Your task to perform on an android device: What's the news in Taiwan? Image 0: 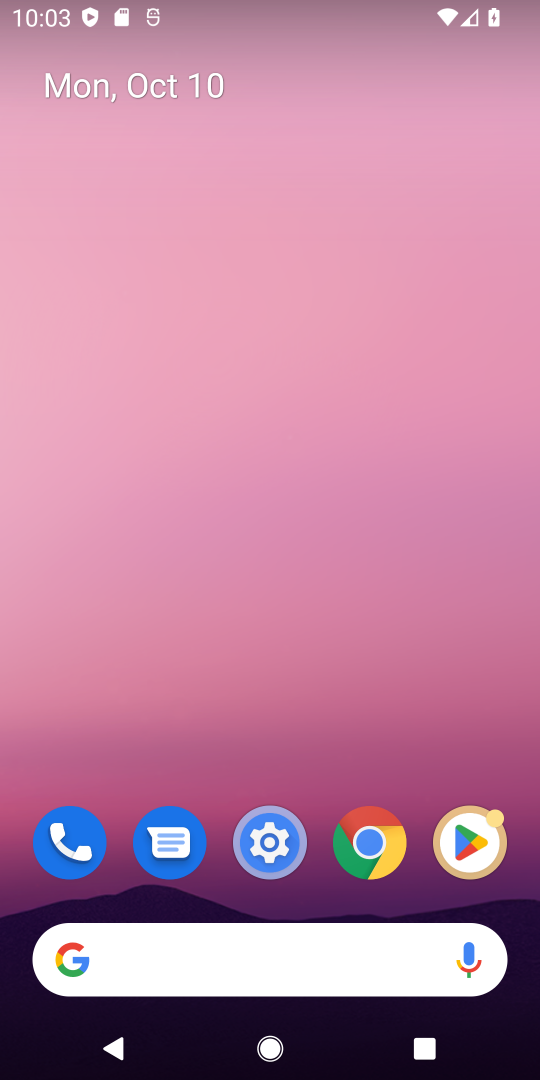
Step 0: click (265, 954)
Your task to perform on an android device: What's the news in Taiwan? Image 1: 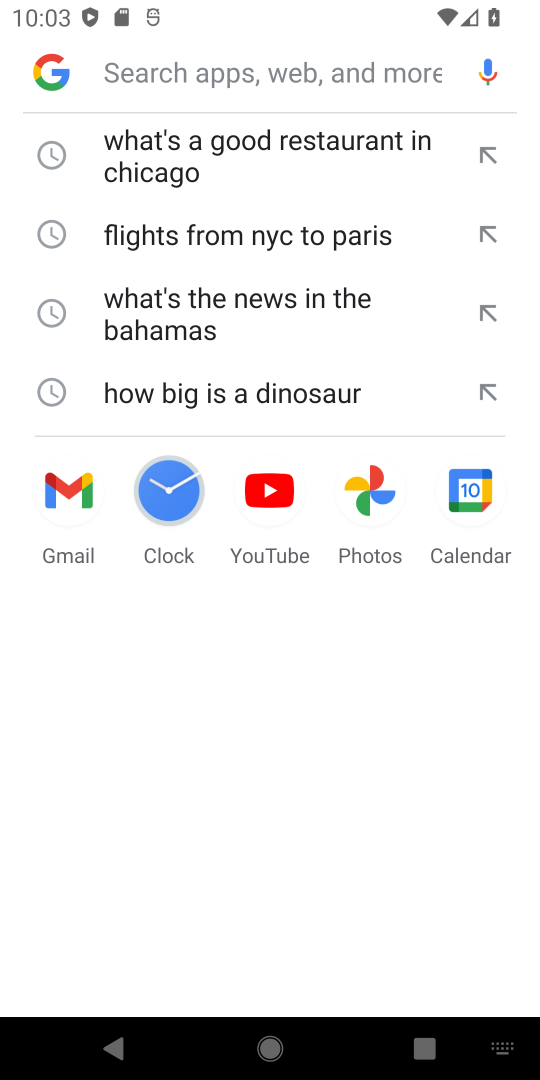
Step 1: type "taiwan"
Your task to perform on an android device: What's the news in Taiwan? Image 2: 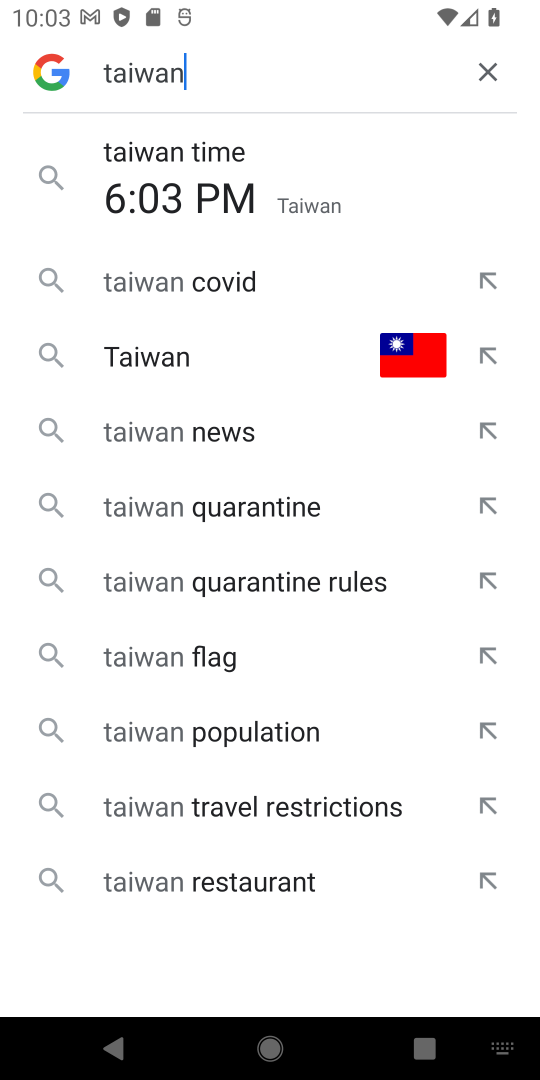
Step 2: click (138, 433)
Your task to perform on an android device: What's the news in Taiwan? Image 3: 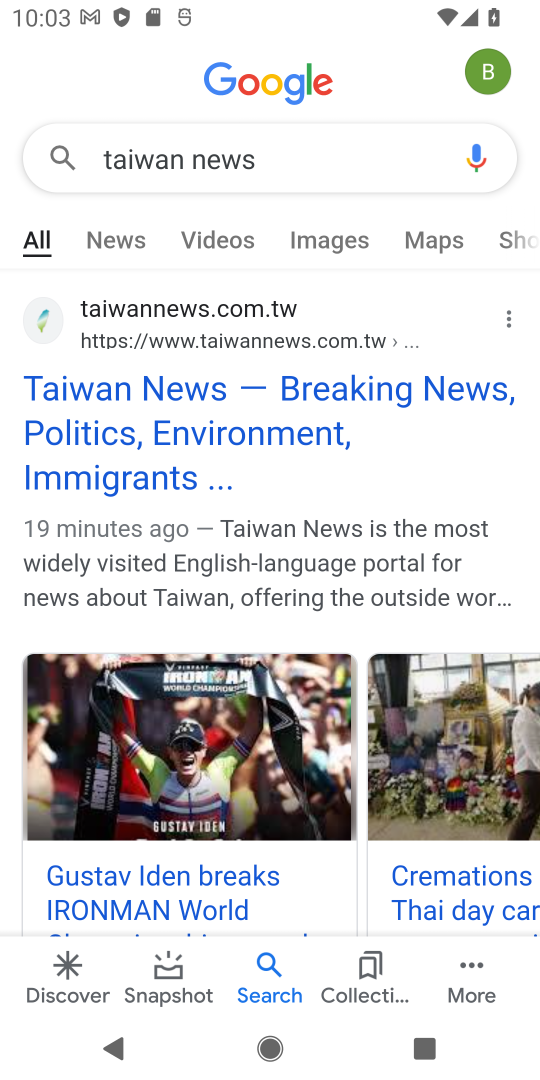
Step 3: click (114, 238)
Your task to perform on an android device: What's the news in Taiwan? Image 4: 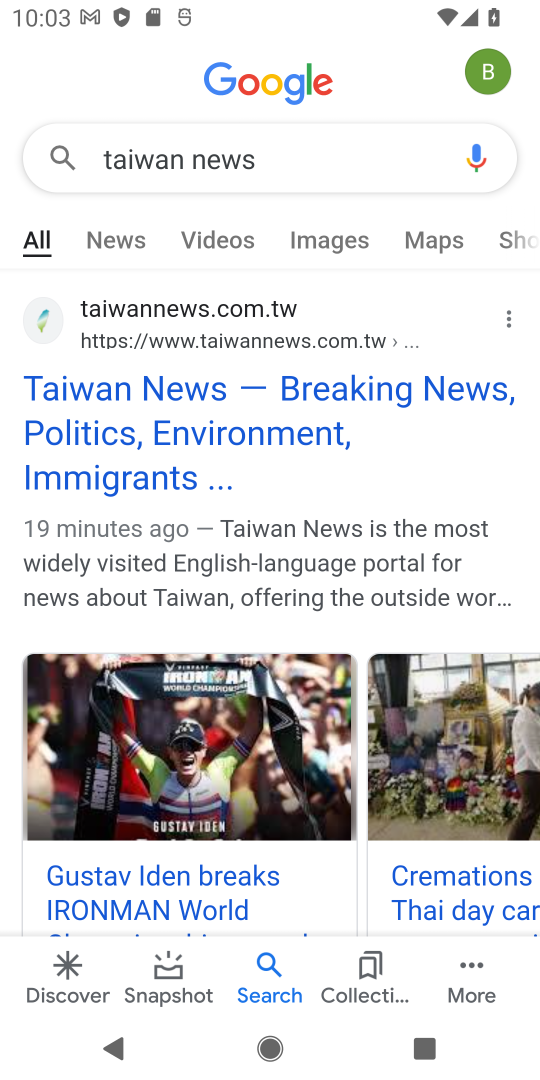
Step 4: click (112, 240)
Your task to perform on an android device: What's the news in Taiwan? Image 5: 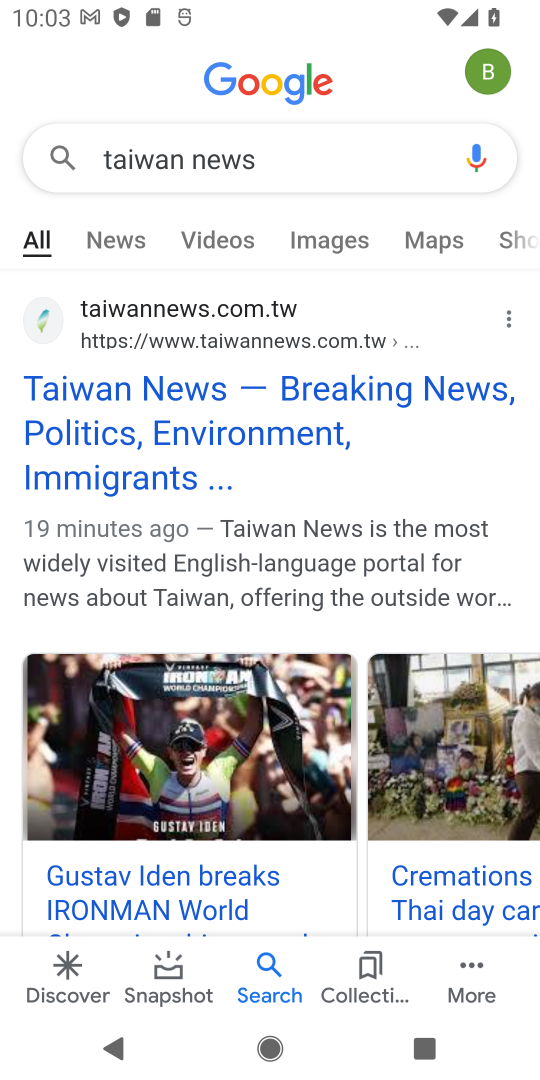
Step 5: click (108, 242)
Your task to perform on an android device: What's the news in Taiwan? Image 6: 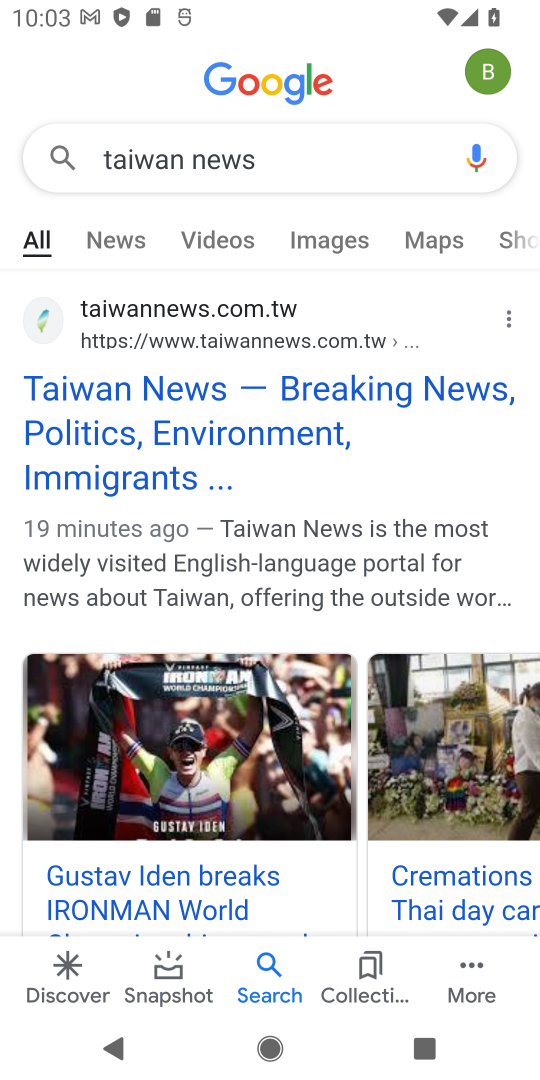
Step 6: click (108, 242)
Your task to perform on an android device: What's the news in Taiwan? Image 7: 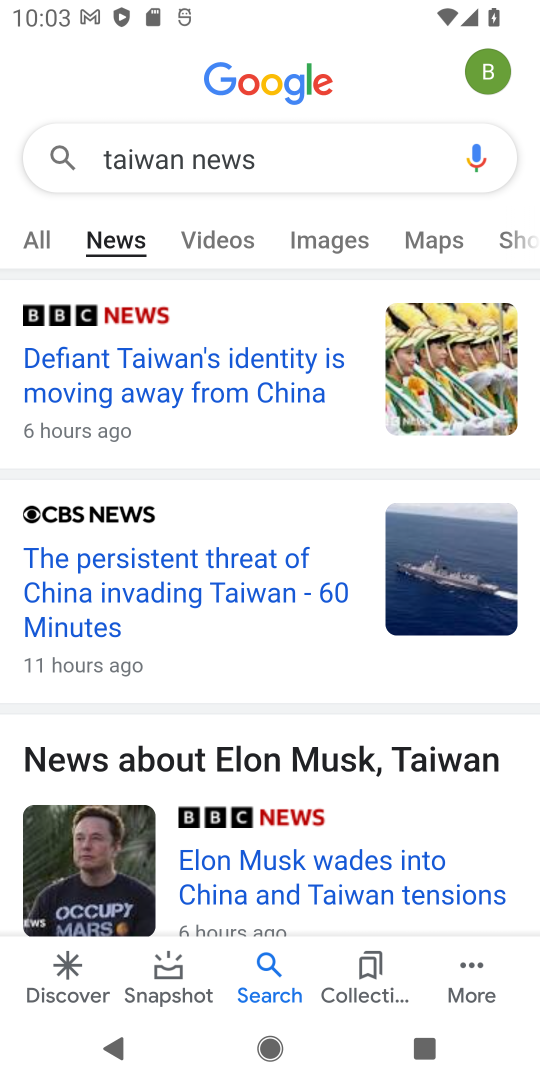
Step 7: click (115, 398)
Your task to perform on an android device: What's the news in Taiwan? Image 8: 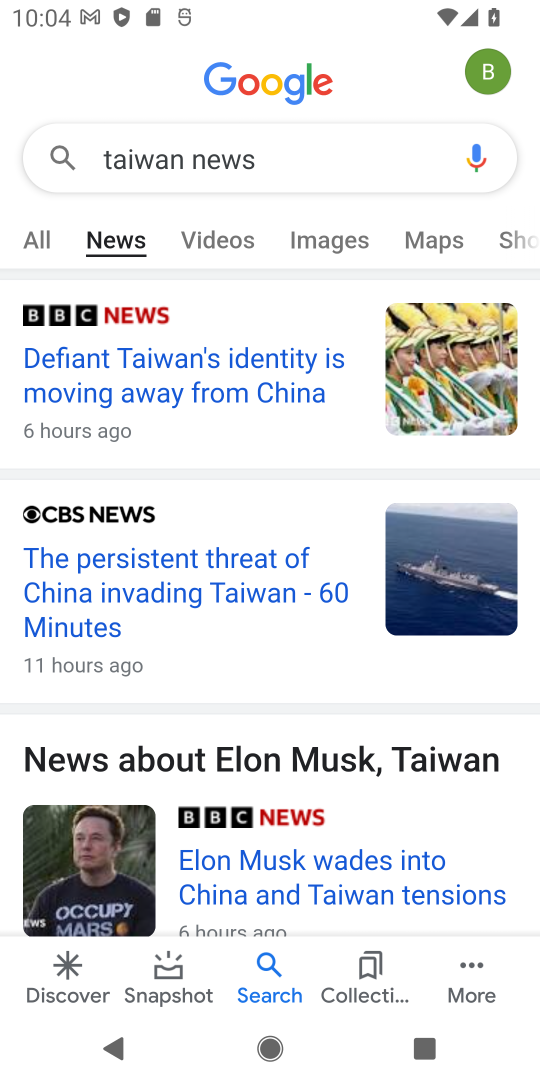
Step 8: click (155, 388)
Your task to perform on an android device: What's the news in Taiwan? Image 9: 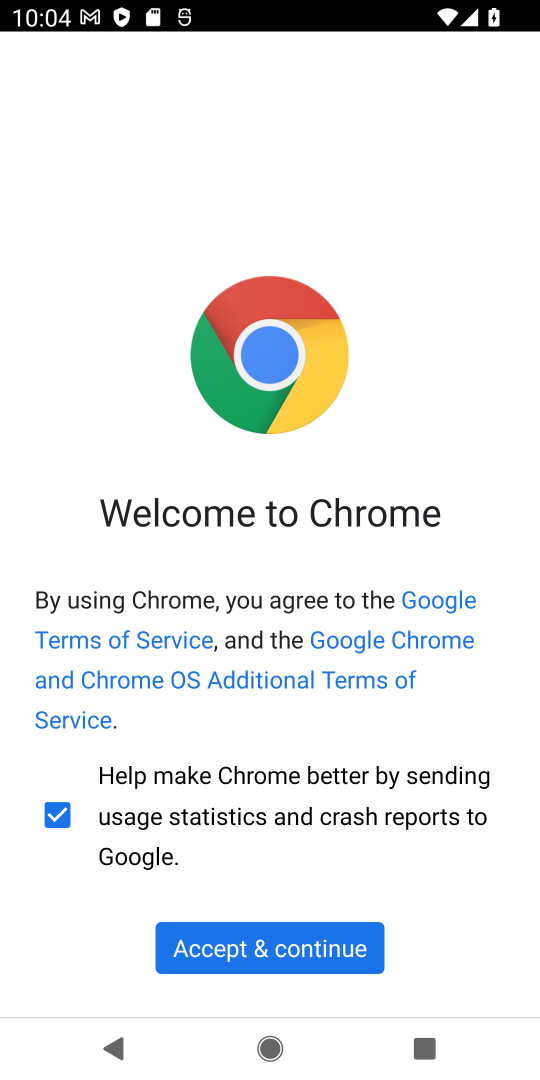
Step 9: click (239, 972)
Your task to perform on an android device: What's the news in Taiwan? Image 10: 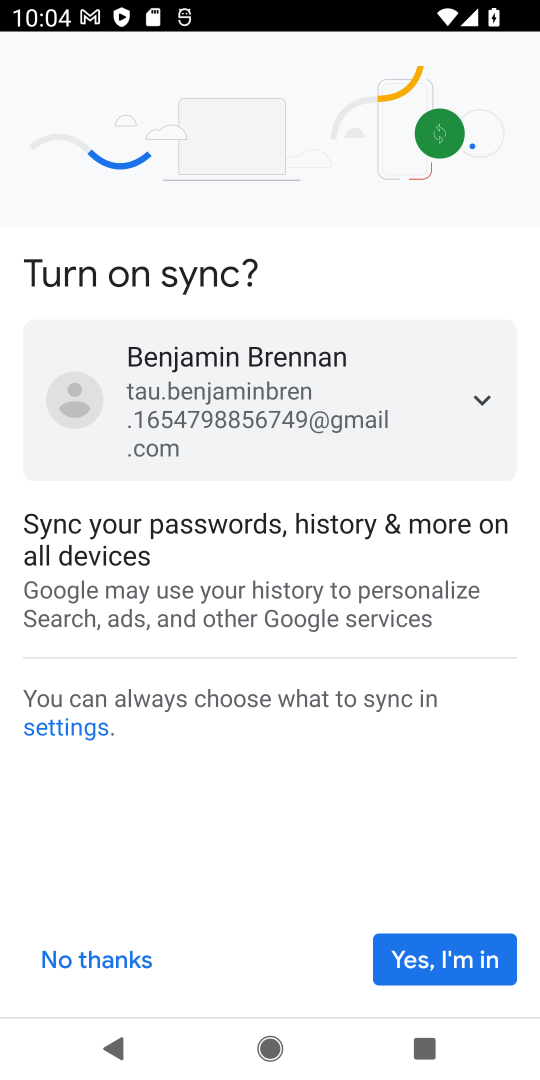
Step 10: click (41, 971)
Your task to perform on an android device: What's the news in Taiwan? Image 11: 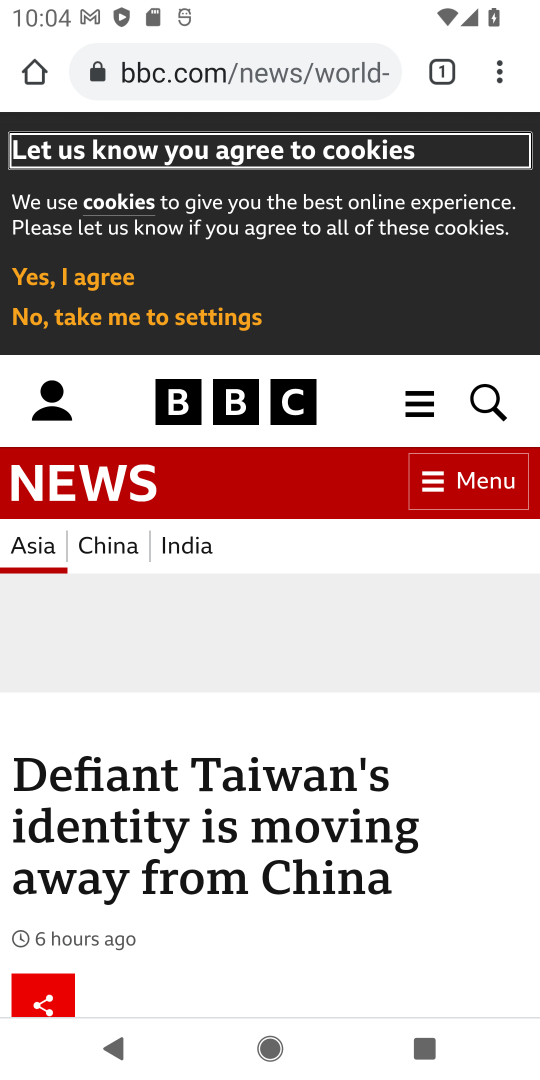
Step 11: task complete